Your task to perform on an android device: turn on airplane mode Image 0: 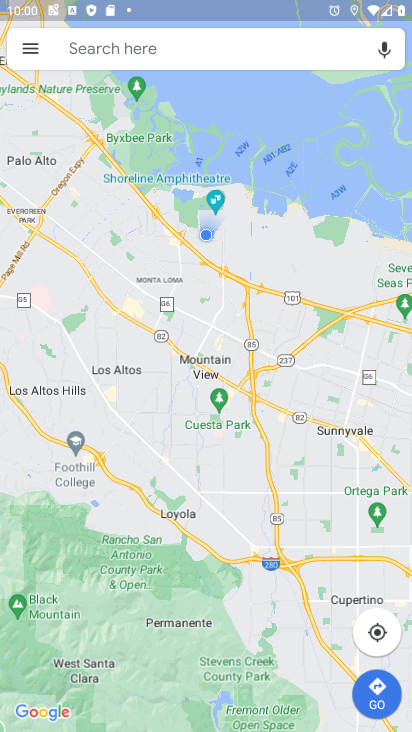
Step 0: press home button
Your task to perform on an android device: turn on airplane mode Image 1: 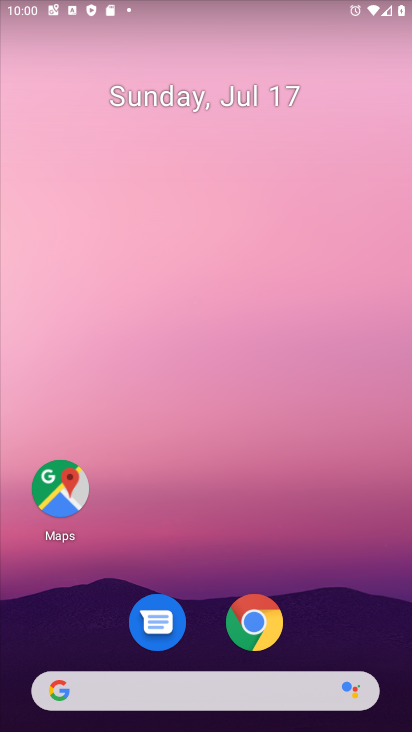
Step 1: drag from (285, 698) to (245, 53)
Your task to perform on an android device: turn on airplane mode Image 2: 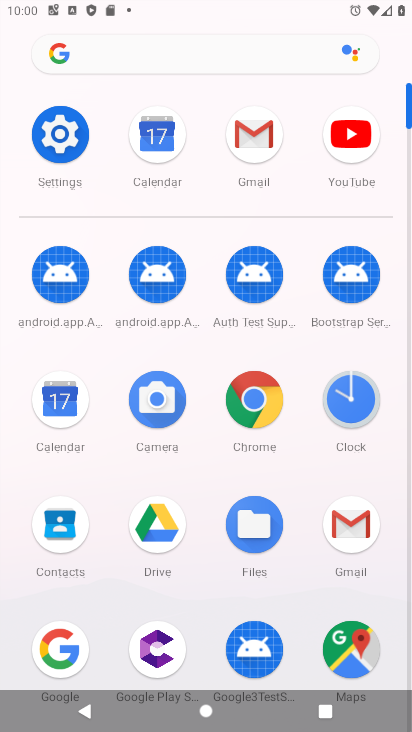
Step 2: click (58, 140)
Your task to perform on an android device: turn on airplane mode Image 3: 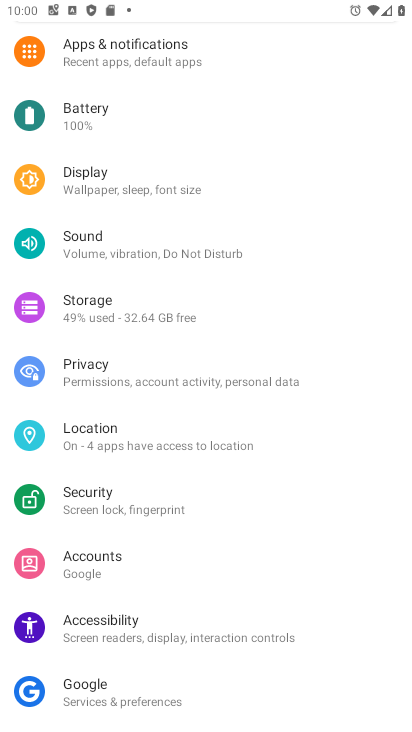
Step 3: drag from (317, 114) to (242, 675)
Your task to perform on an android device: turn on airplane mode Image 4: 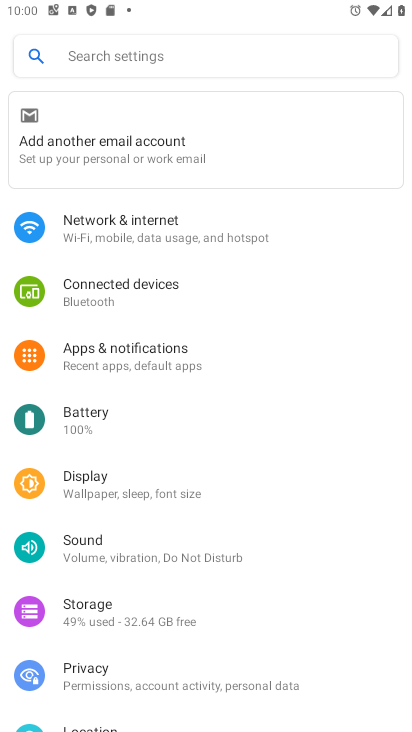
Step 4: click (289, 229)
Your task to perform on an android device: turn on airplane mode Image 5: 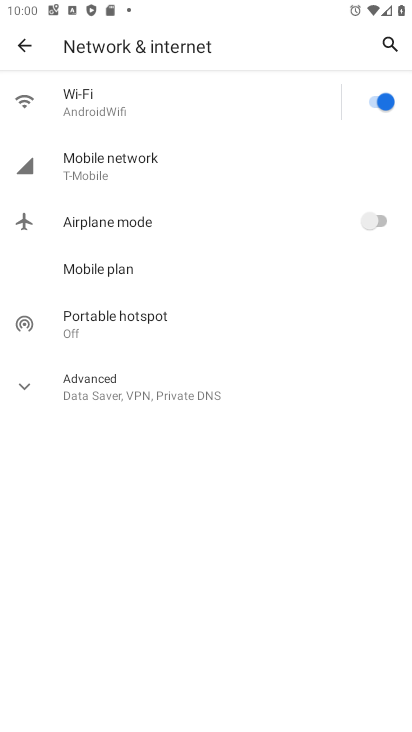
Step 5: click (382, 214)
Your task to perform on an android device: turn on airplane mode Image 6: 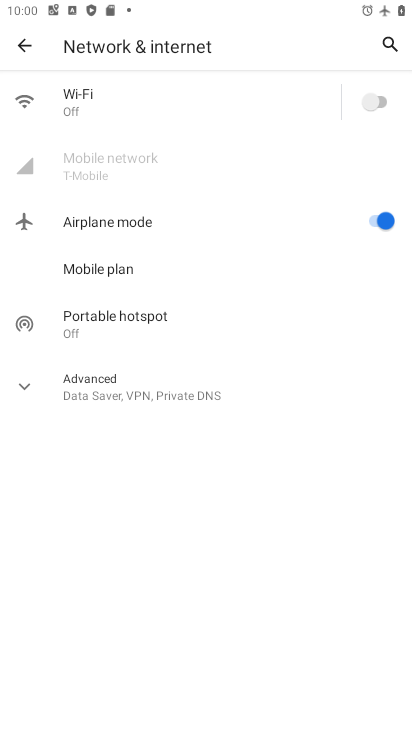
Step 6: task complete